Your task to perform on an android device: What's on the menu at Denny's? Image 0: 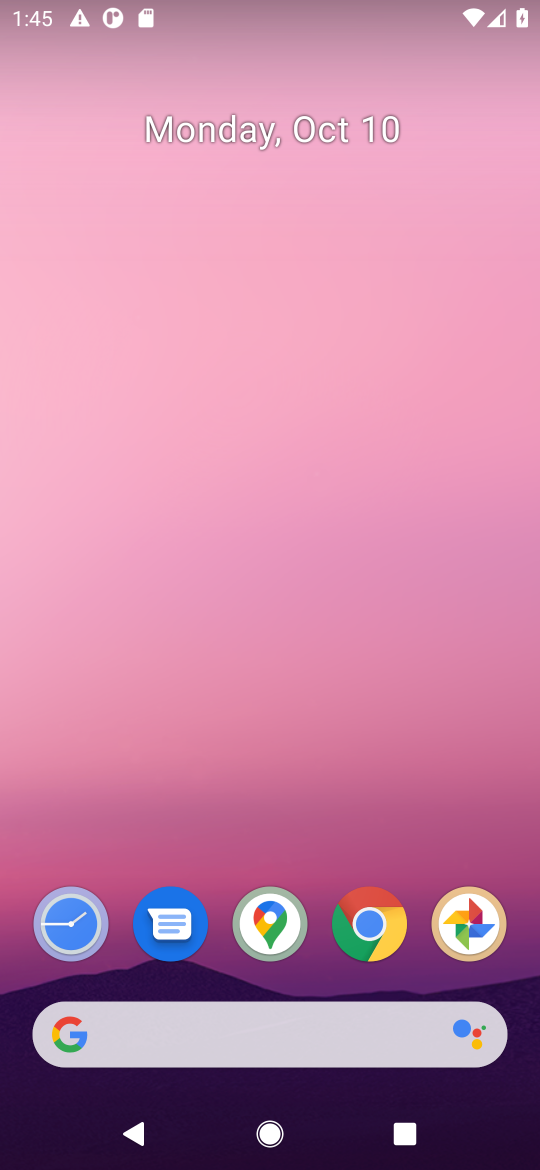
Step 0: drag from (322, 841) to (366, 12)
Your task to perform on an android device: What's on the menu at Denny's? Image 1: 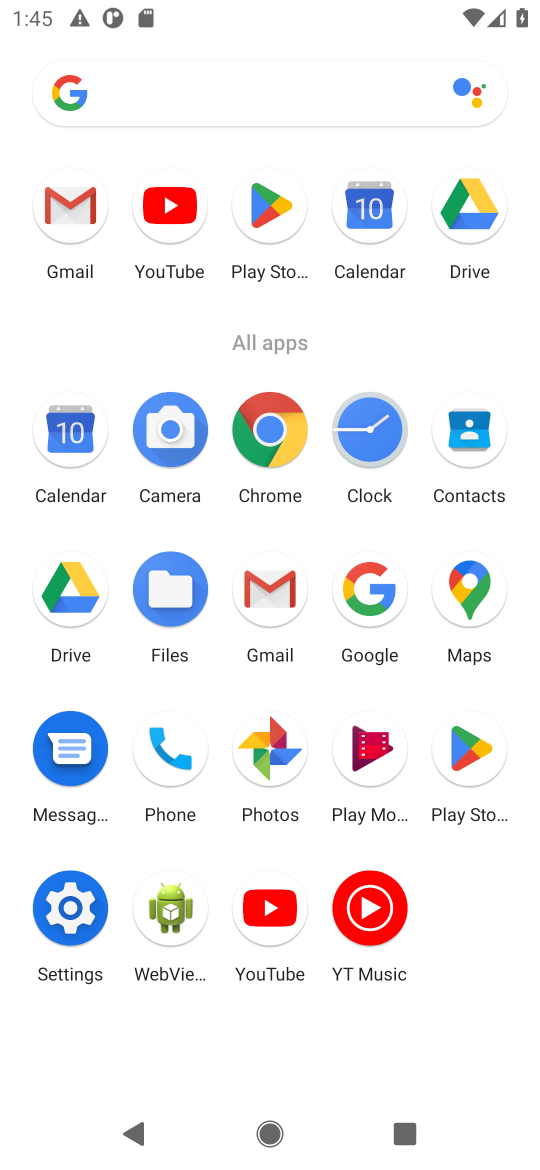
Step 1: click (268, 431)
Your task to perform on an android device: What's on the menu at Denny's? Image 2: 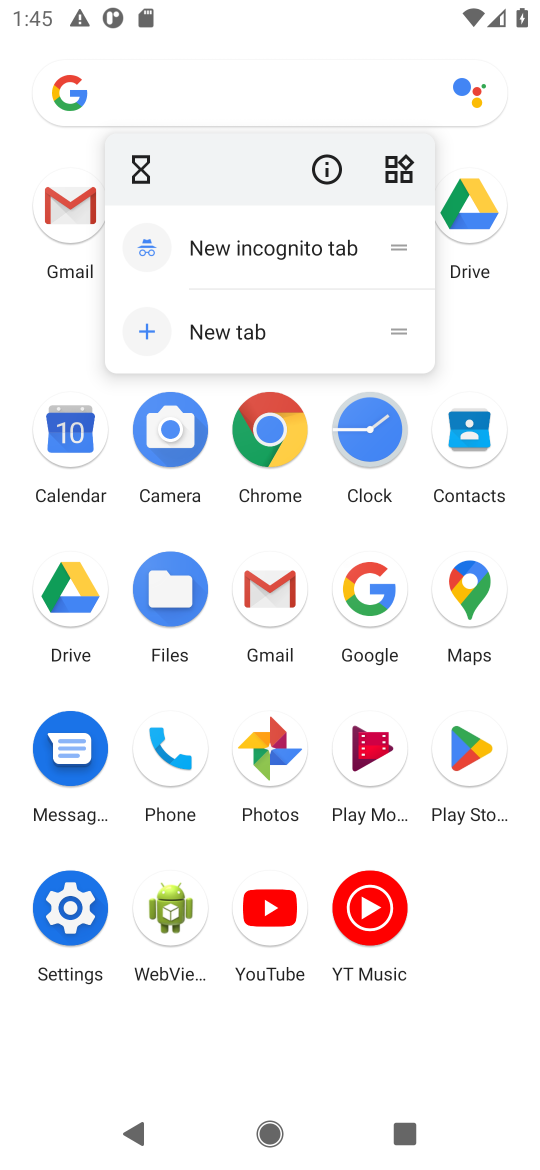
Step 2: click (268, 431)
Your task to perform on an android device: What's on the menu at Denny's? Image 3: 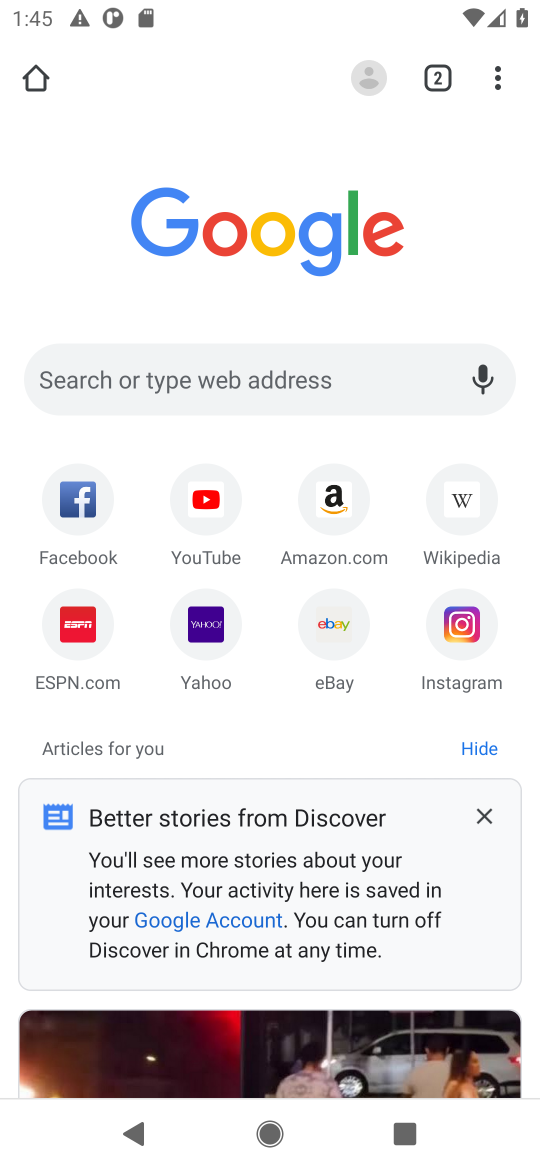
Step 3: click (193, 362)
Your task to perform on an android device: What's on the menu at Denny's? Image 4: 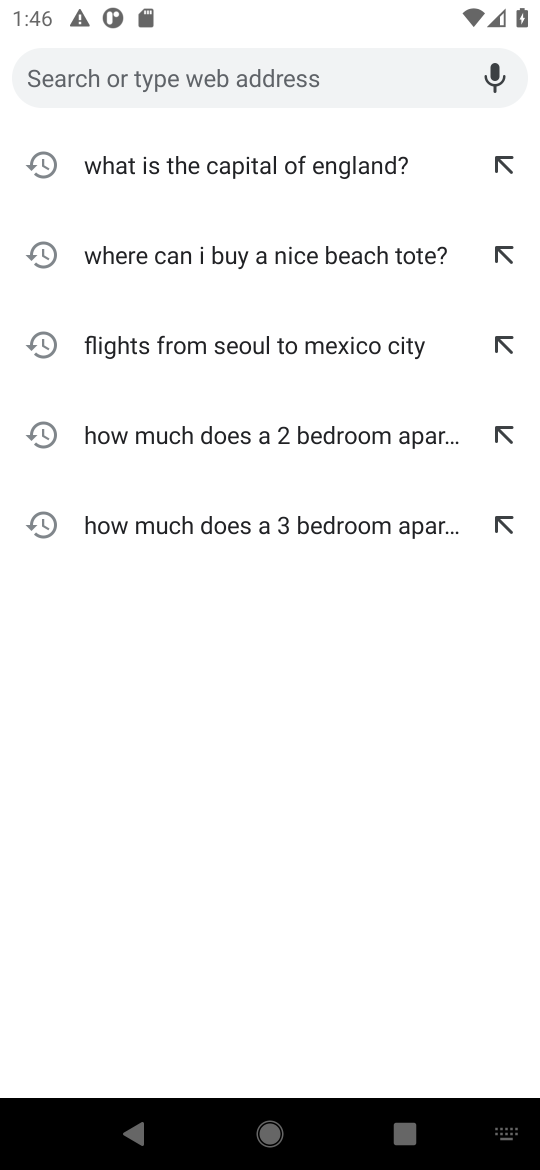
Step 4: click (483, 1163)
Your task to perform on an android device: What's on the menu at Denny's? Image 5: 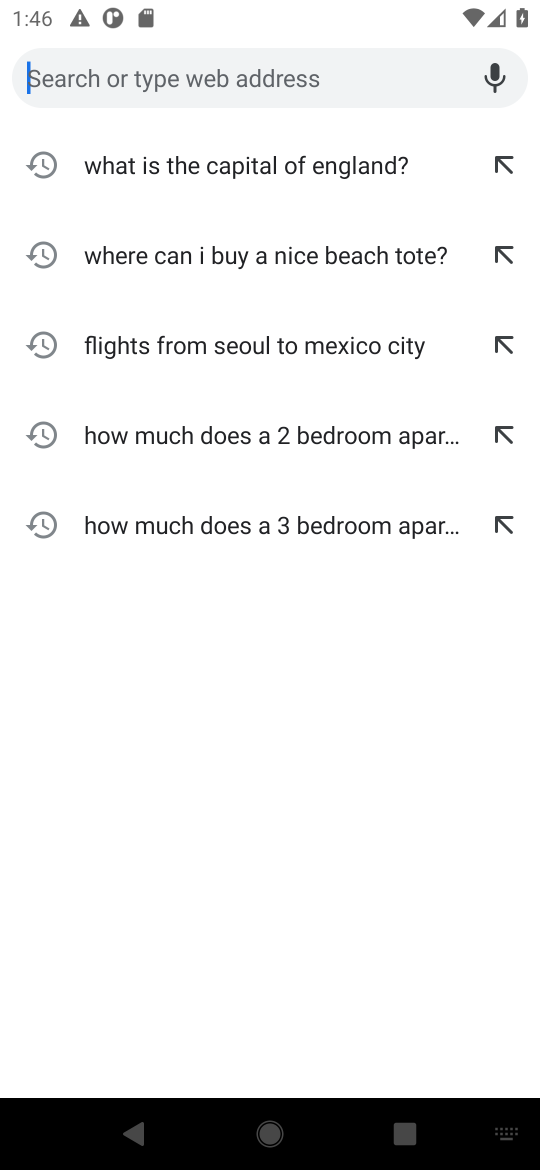
Step 5: type "What's on the menu at Denny's?"
Your task to perform on an android device: What's on the menu at Denny's? Image 6: 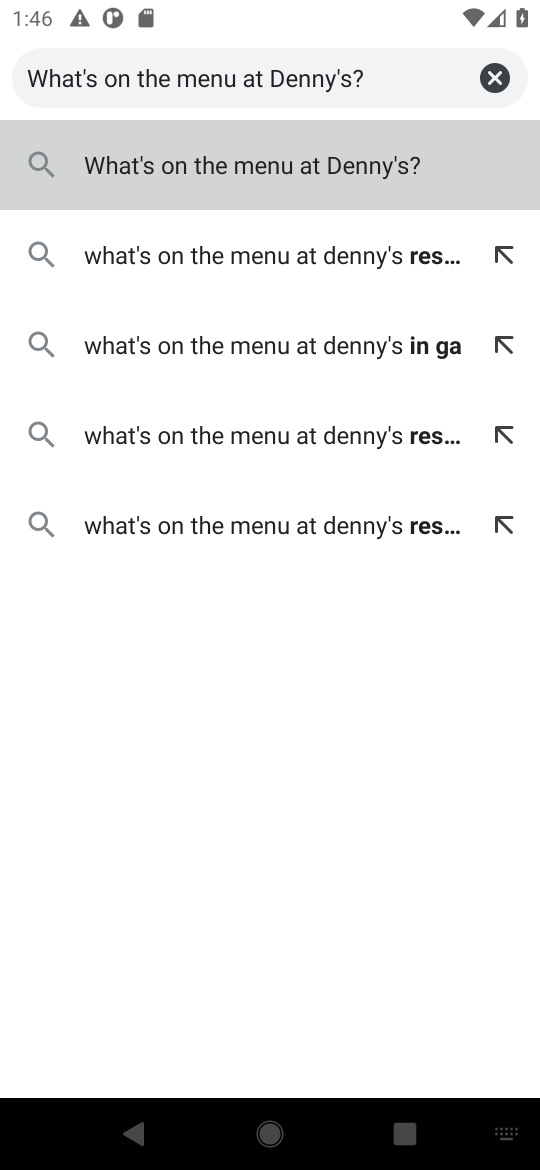
Step 6: click (195, 169)
Your task to perform on an android device: What's on the menu at Denny's? Image 7: 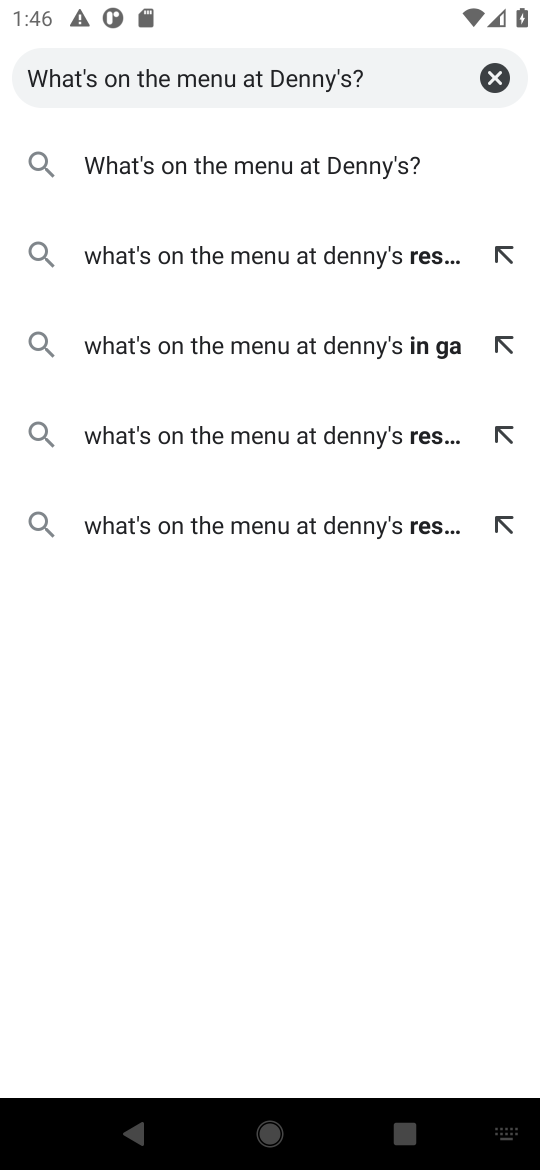
Step 7: click (362, 152)
Your task to perform on an android device: What's on the menu at Denny's? Image 8: 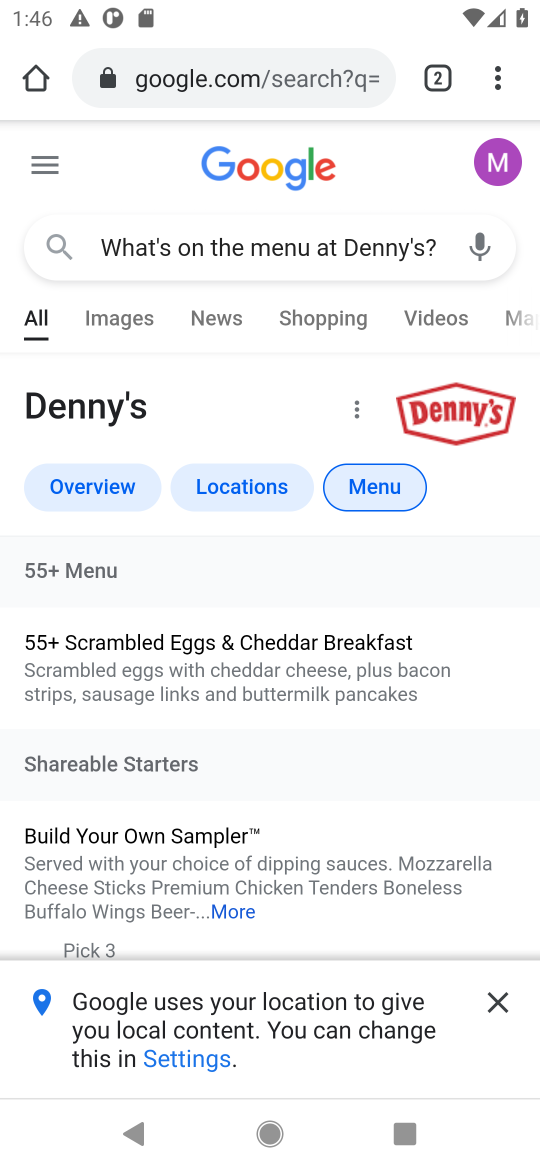
Step 8: task complete